Your task to perform on an android device: toggle airplane mode Image 0: 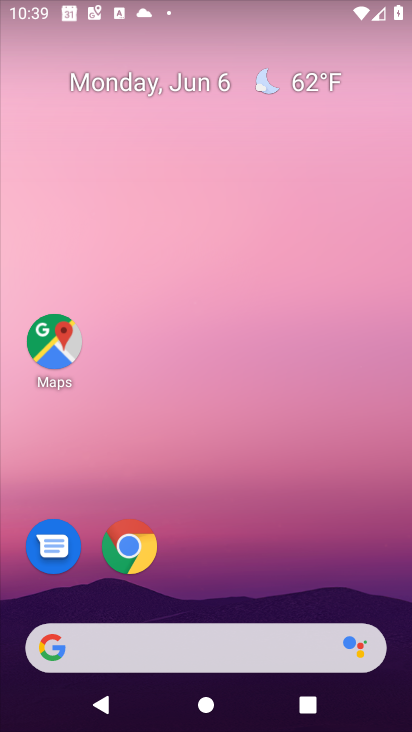
Step 0: click (349, 8)
Your task to perform on an android device: toggle airplane mode Image 1: 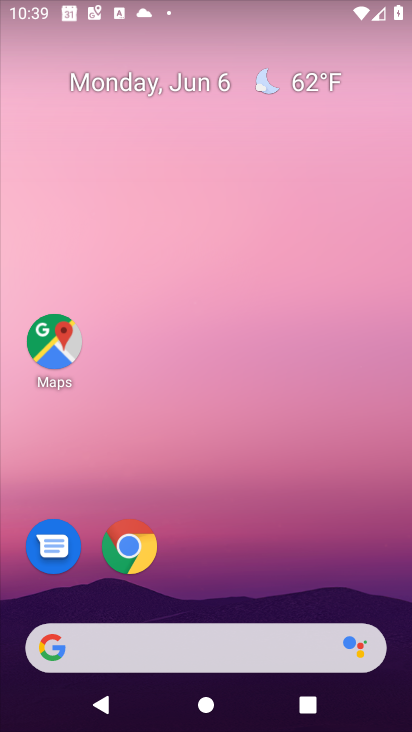
Step 1: drag from (373, 598) to (314, 118)
Your task to perform on an android device: toggle airplane mode Image 2: 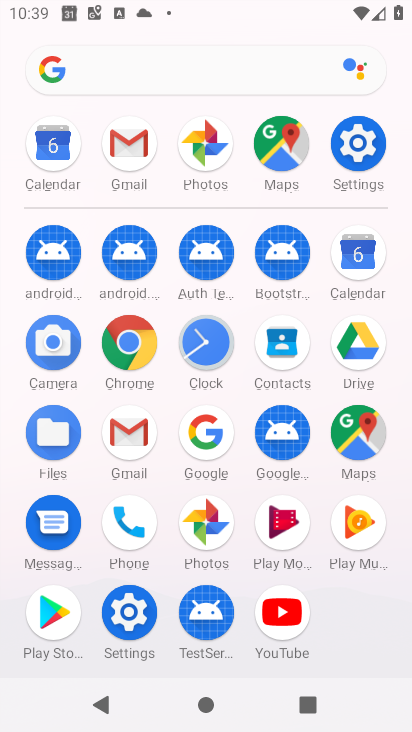
Step 2: click (128, 611)
Your task to perform on an android device: toggle airplane mode Image 3: 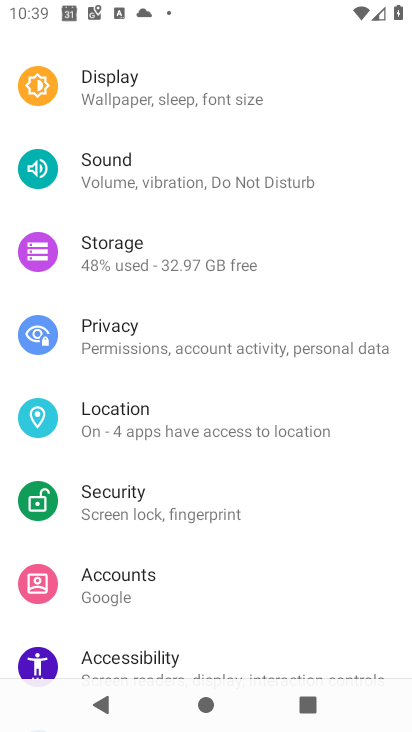
Step 3: drag from (217, 194) to (208, 390)
Your task to perform on an android device: toggle airplane mode Image 4: 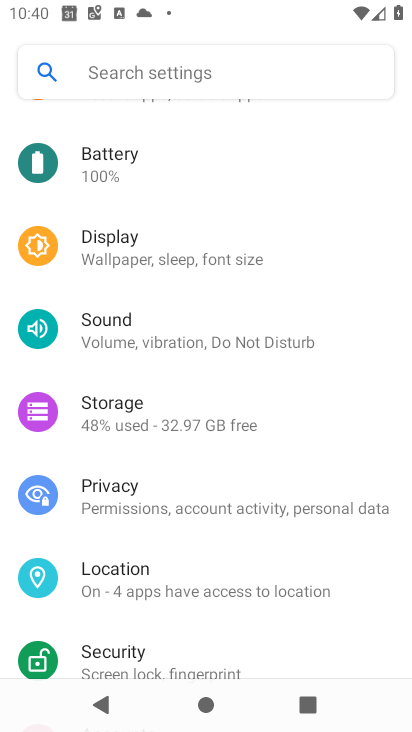
Step 4: drag from (321, 149) to (266, 381)
Your task to perform on an android device: toggle airplane mode Image 5: 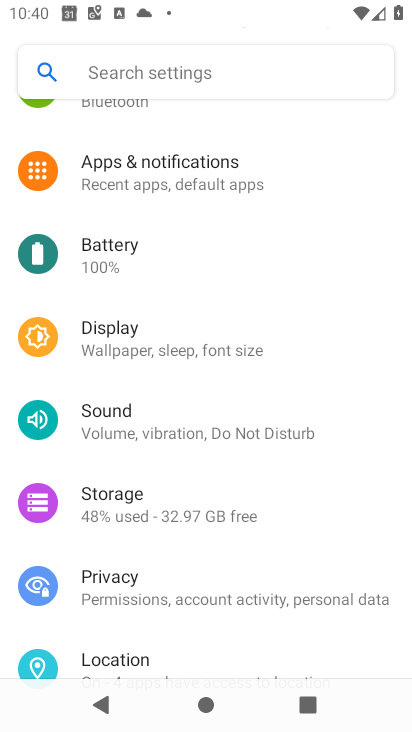
Step 5: drag from (398, 180) to (346, 462)
Your task to perform on an android device: toggle airplane mode Image 6: 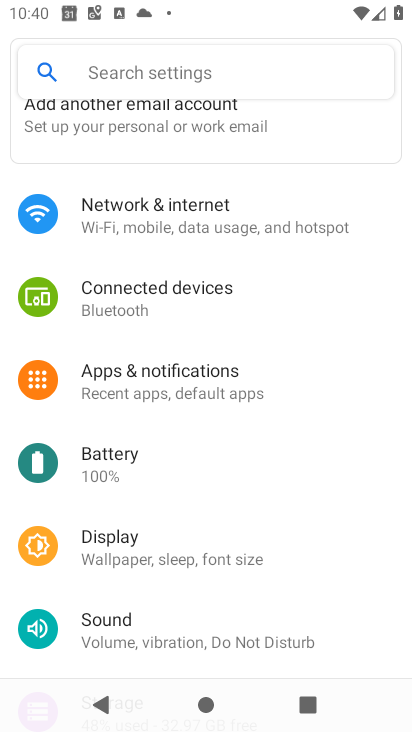
Step 6: click (144, 200)
Your task to perform on an android device: toggle airplane mode Image 7: 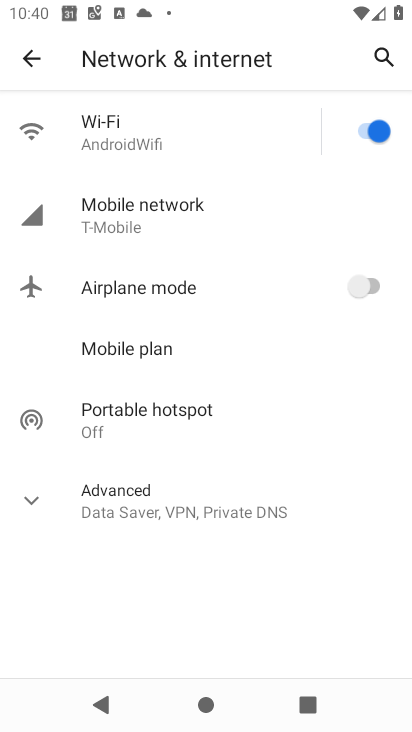
Step 7: click (375, 283)
Your task to perform on an android device: toggle airplane mode Image 8: 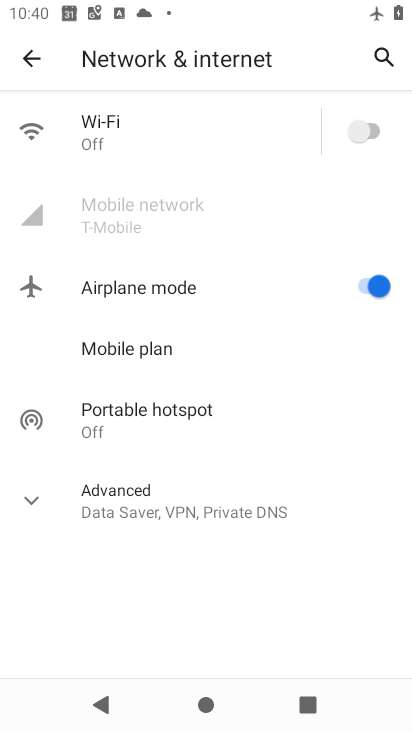
Step 8: task complete